Your task to perform on an android device: Clear all items from cart on ebay.com. Add bose quietcomfort 35 to the cart on ebay.com, then select checkout. Image 0: 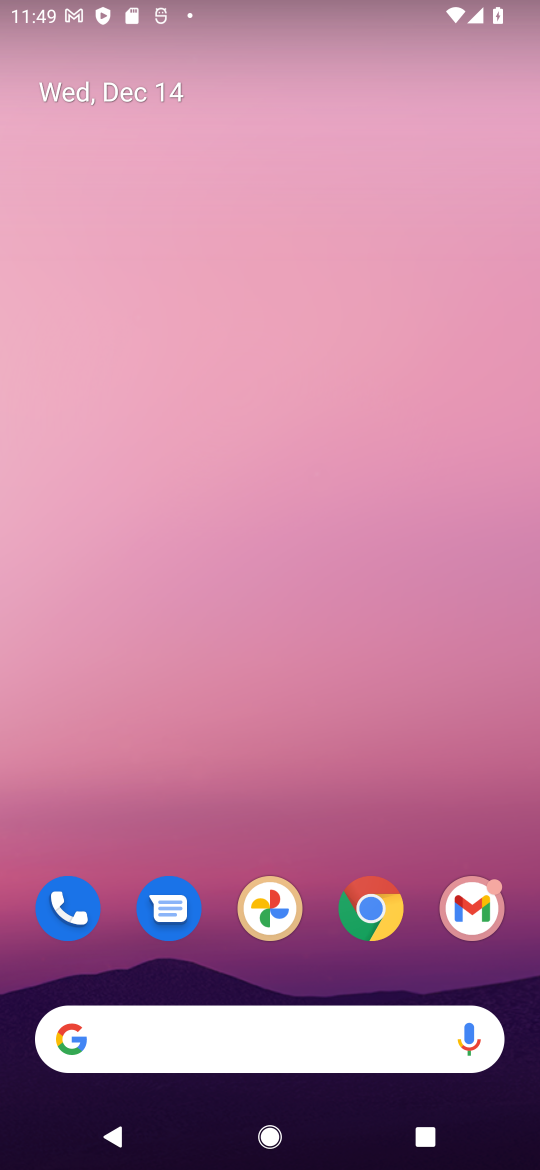
Step 0: click (372, 914)
Your task to perform on an android device: Clear all items from cart on ebay.com. Add bose quietcomfort 35 to the cart on ebay.com, then select checkout. Image 1: 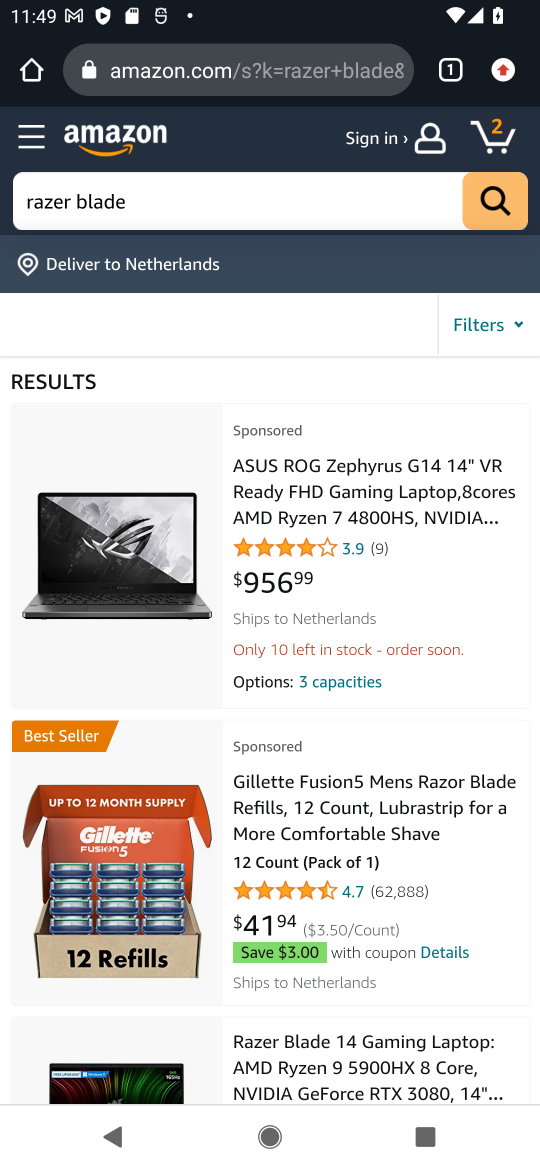
Step 1: click (144, 73)
Your task to perform on an android device: Clear all items from cart on ebay.com. Add bose quietcomfort 35 to the cart on ebay.com, then select checkout. Image 2: 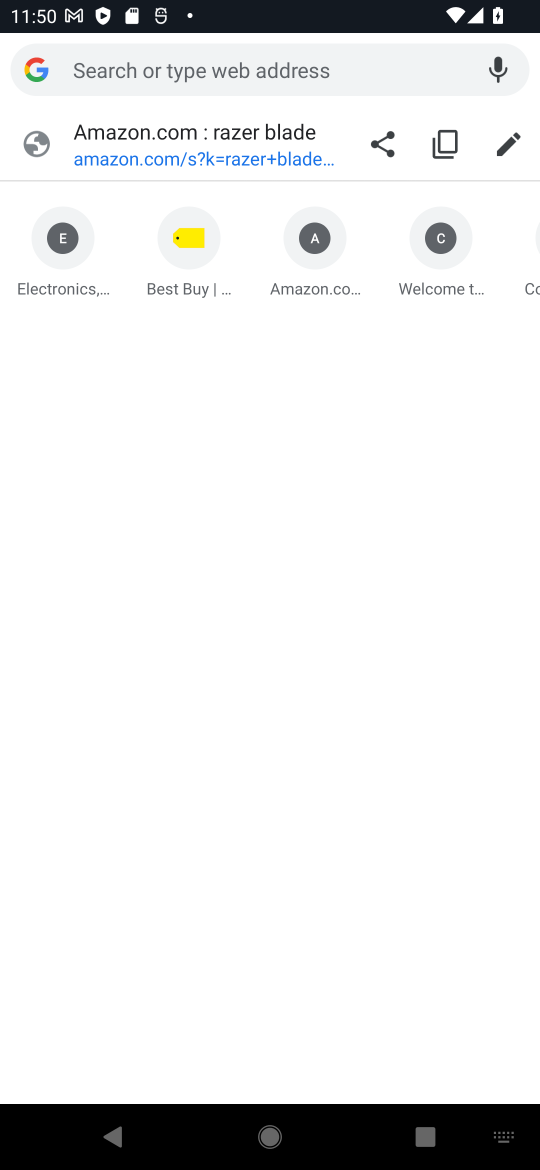
Step 2: type "ebay.com"
Your task to perform on an android device: Clear all items from cart on ebay.com. Add bose quietcomfort 35 to the cart on ebay.com, then select checkout. Image 3: 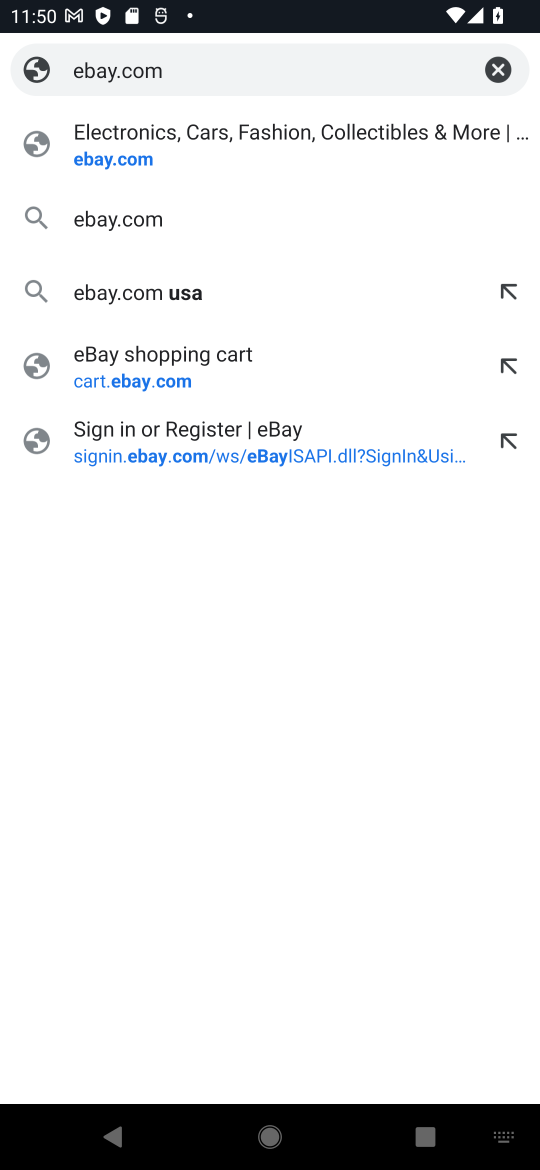
Step 3: click (112, 146)
Your task to perform on an android device: Clear all items from cart on ebay.com. Add bose quietcomfort 35 to the cart on ebay.com, then select checkout. Image 4: 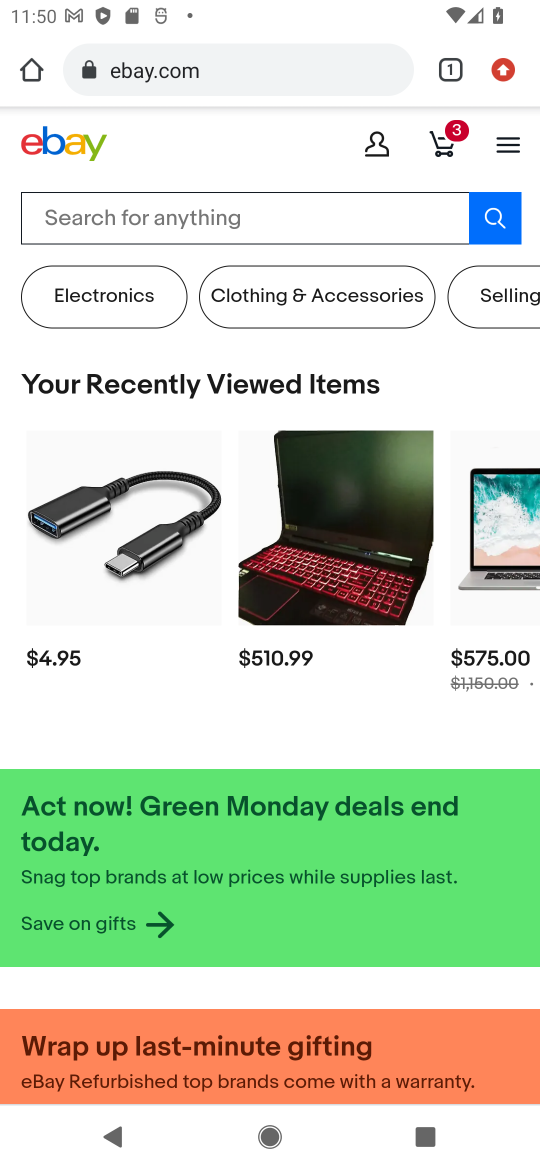
Step 4: click (449, 150)
Your task to perform on an android device: Clear all items from cart on ebay.com. Add bose quietcomfort 35 to the cart on ebay.com, then select checkout. Image 5: 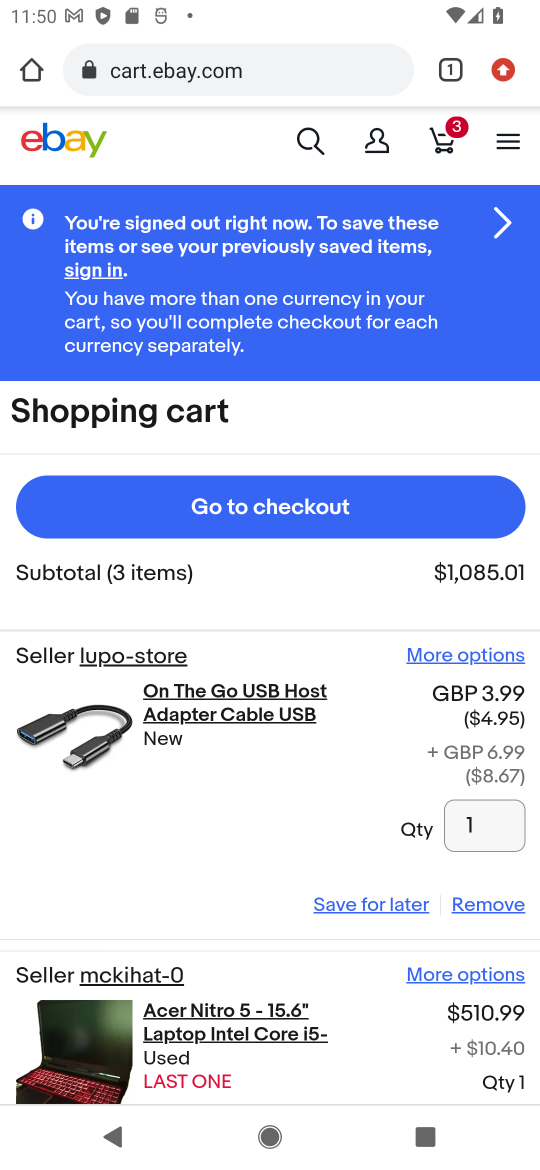
Step 5: click (467, 897)
Your task to perform on an android device: Clear all items from cart on ebay.com. Add bose quietcomfort 35 to the cart on ebay.com, then select checkout. Image 6: 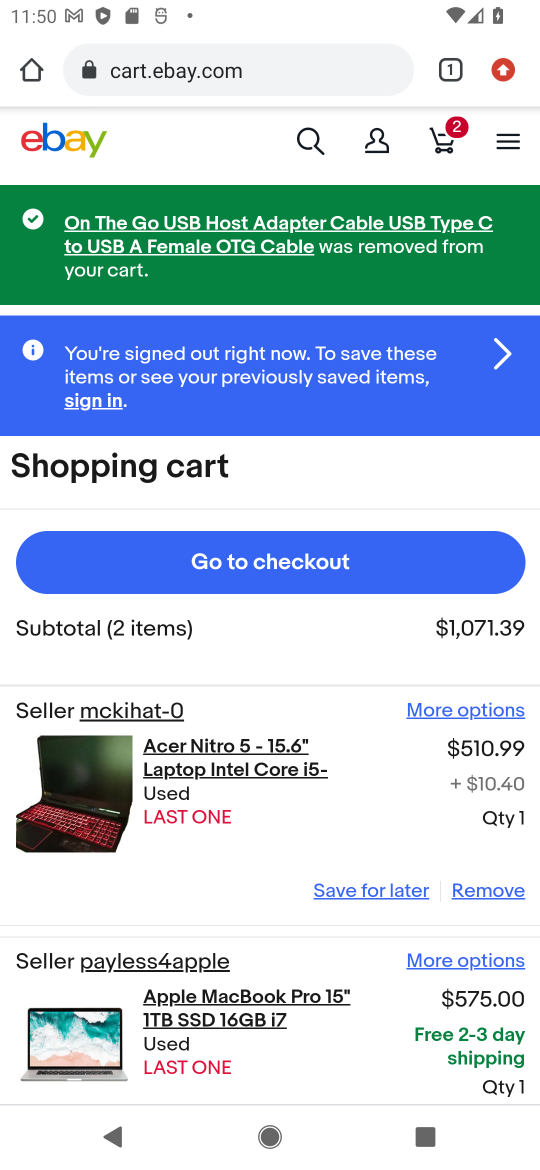
Step 6: click (467, 897)
Your task to perform on an android device: Clear all items from cart on ebay.com. Add bose quietcomfort 35 to the cart on ebay.com, then select checkout. Image 7: 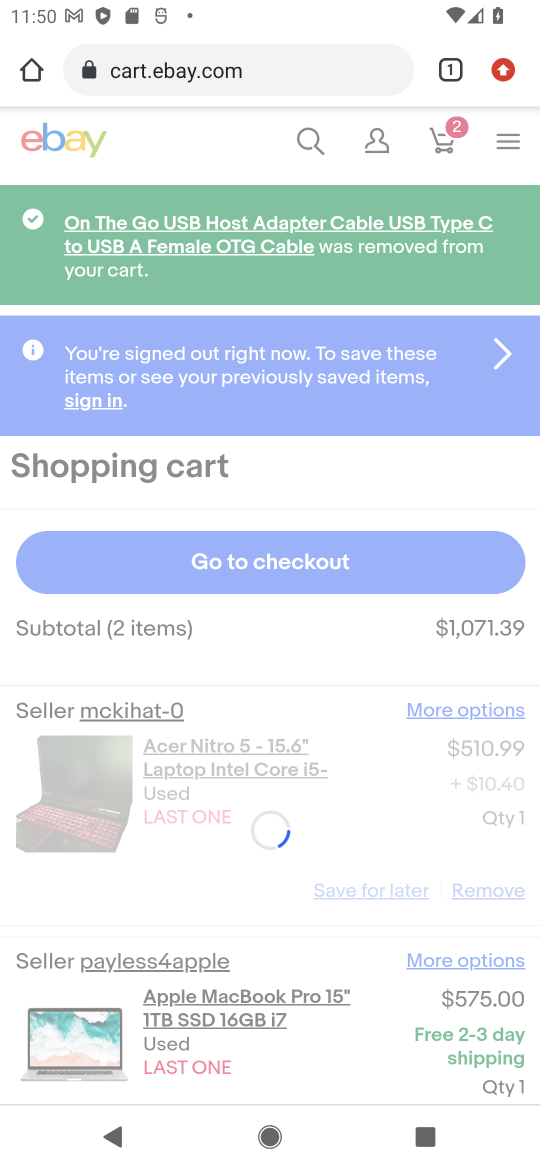
Step 7: drag from (426, 844) to (411, 698)
Your task to perform on an android device: Clear all items from cart on ebay.com. Add bose quietcomfort 35 to the cart on ebay.com, then select checkout. Image 8: 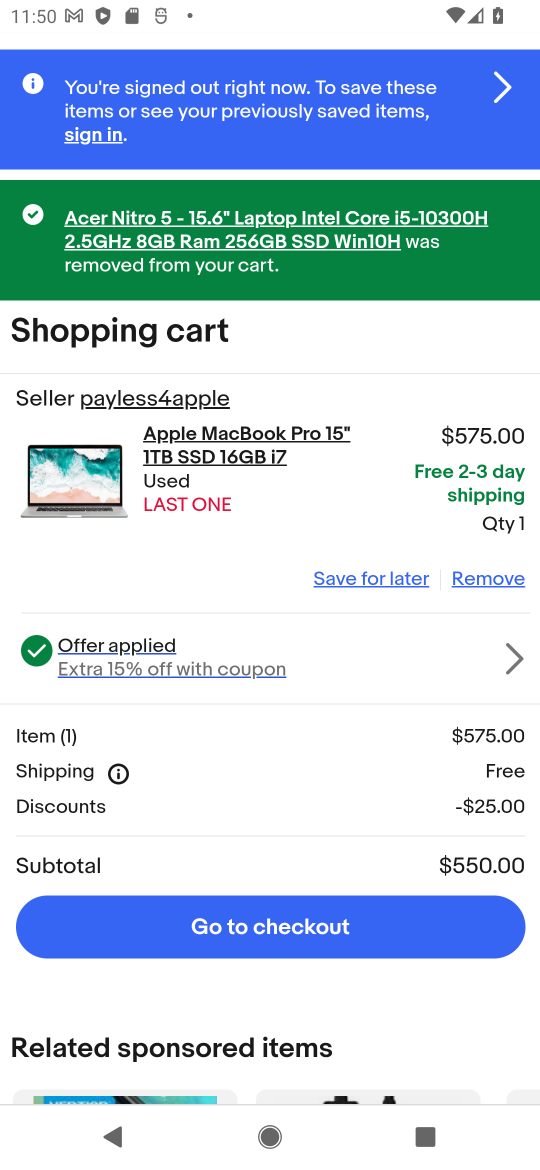
Step 8: click (505, 582)
Your task to perform on an android device: Clear all items from cart on ebay.com. Add bose quietcomfort 35 to the cart on ebay.com, then select checkout. Image 9: 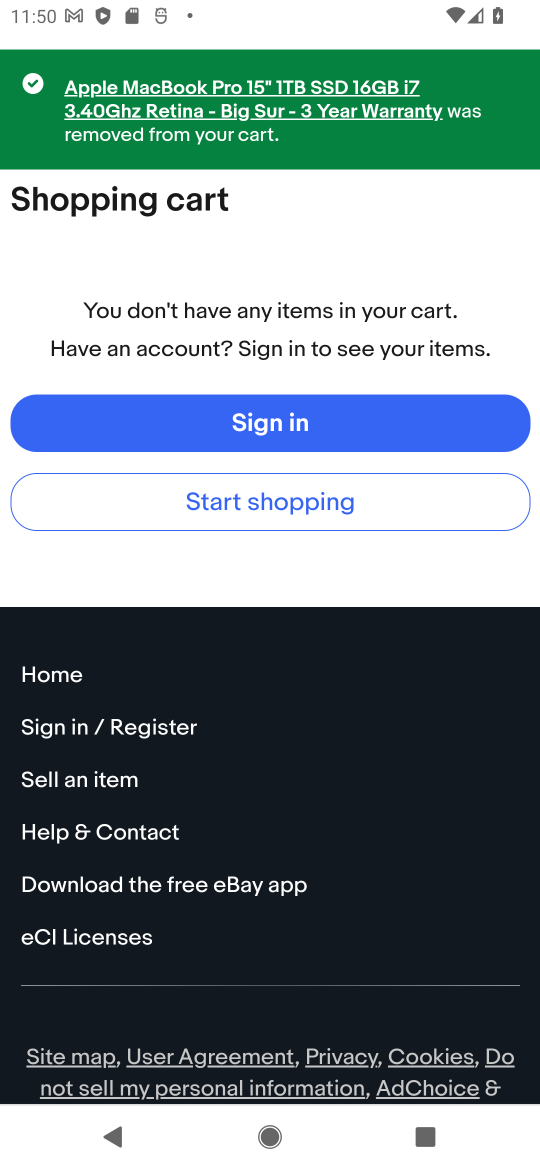
Step 9: drag from (461, 266) to (449, 554)
Your task to perform on an android device: Clear all items from cart on ebay.com. Add bose quietcomfort 35 to the cart on ebay.com, then select checkout. Image 10: 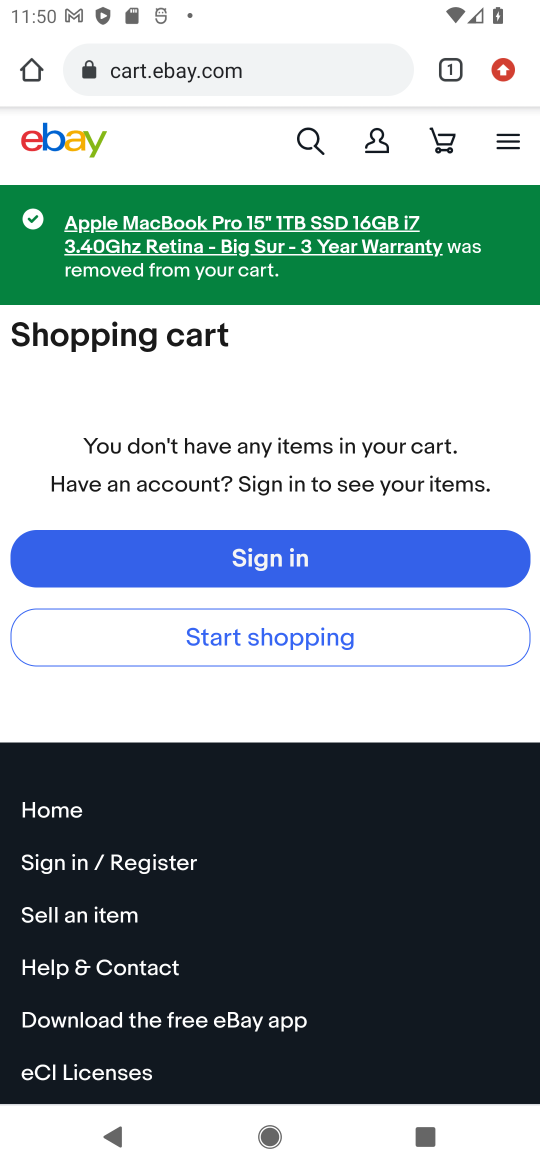
Step 10: click (310, 144)
Your task to perform on an android device: Clear all items from cart on ebay.com. Add bose quietcomfort 35 to the cart on ebay.com, then select checkout. Image 11: 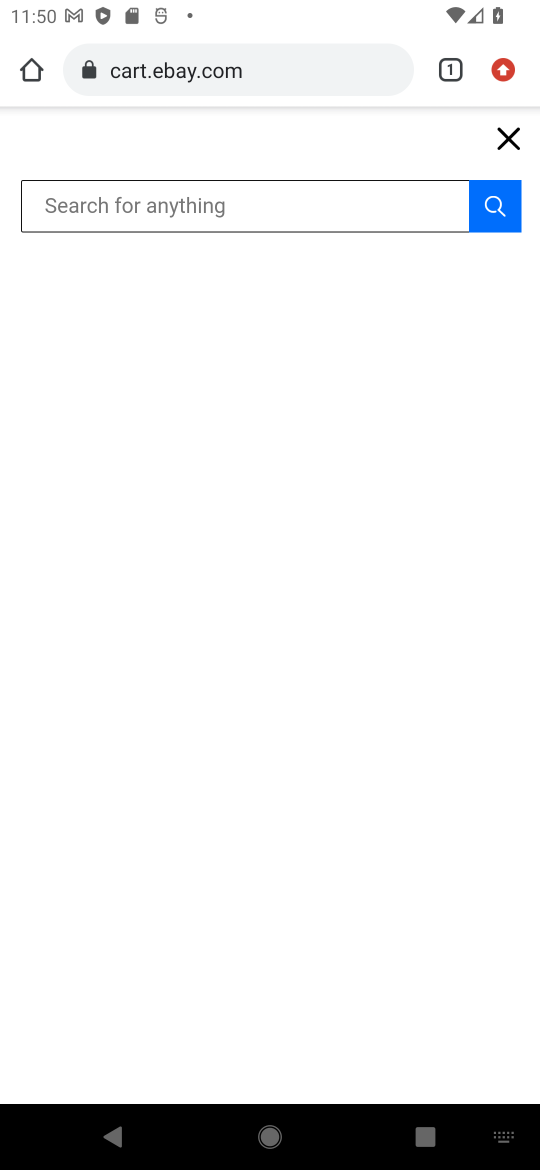
Step 11: type "bose quietcomfort 35"
Your task to perform on an android device: Clear all items from cart on ebay.com. Add bose quietcomfort 35 to the cart on ebay.com, then select checkout. Image 12: 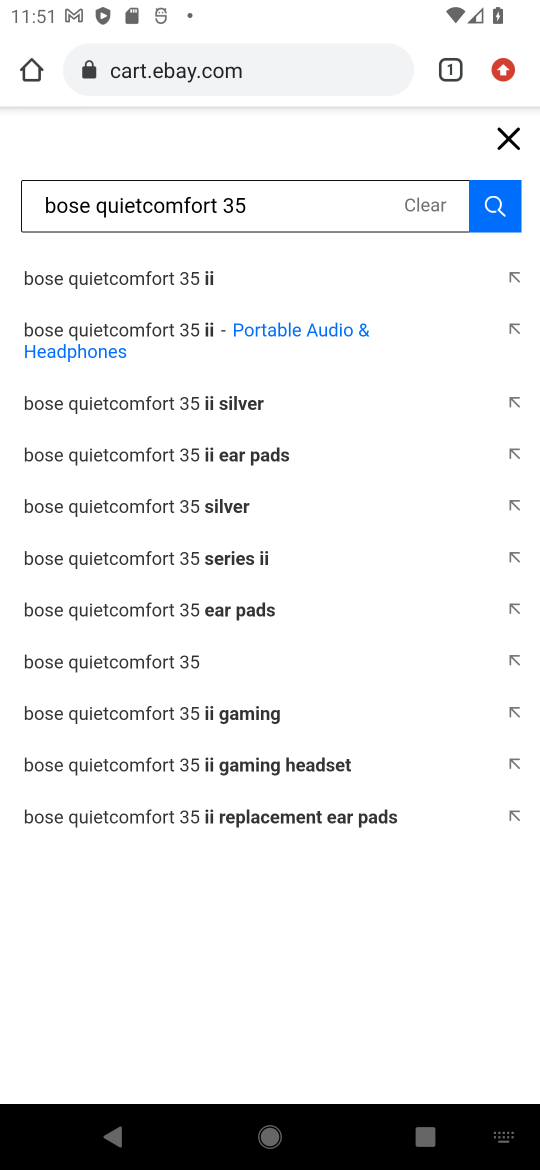
Step 12: click (130, 665)
Your task to perform on an android device: Clear all items from cart on ebay.com. Add bose quietcomfort 35 to the cart on ebay.com, then select checkout. Image 13: 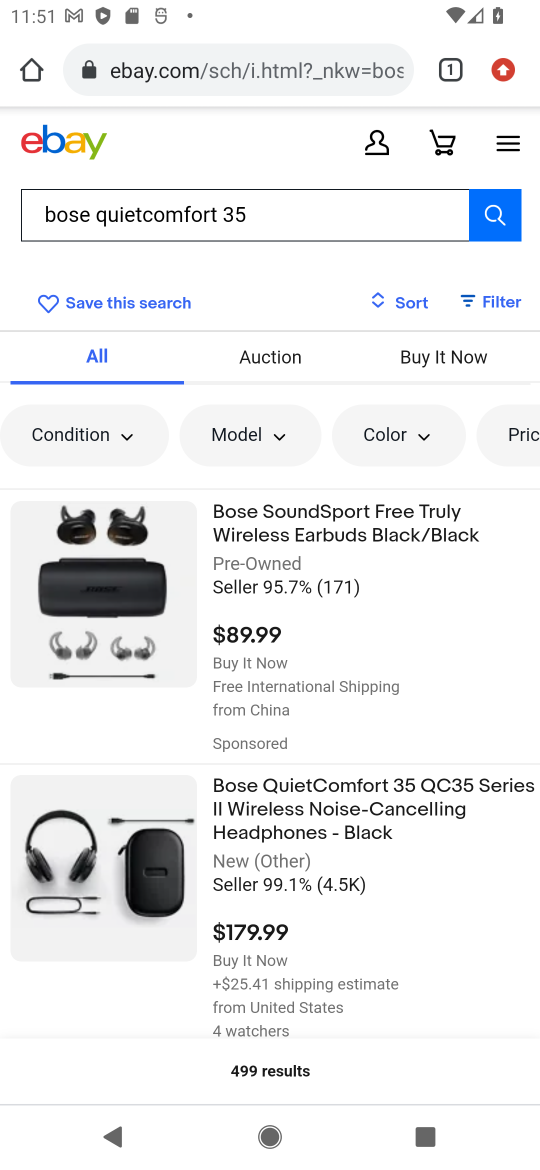
Step 13: click (249, 834)
Your task to perform on an android device: Clear all items from cart on ebay.com. Add bose quietcomfort 35 to the cart on ebay.com, then select checkout. Image 14: 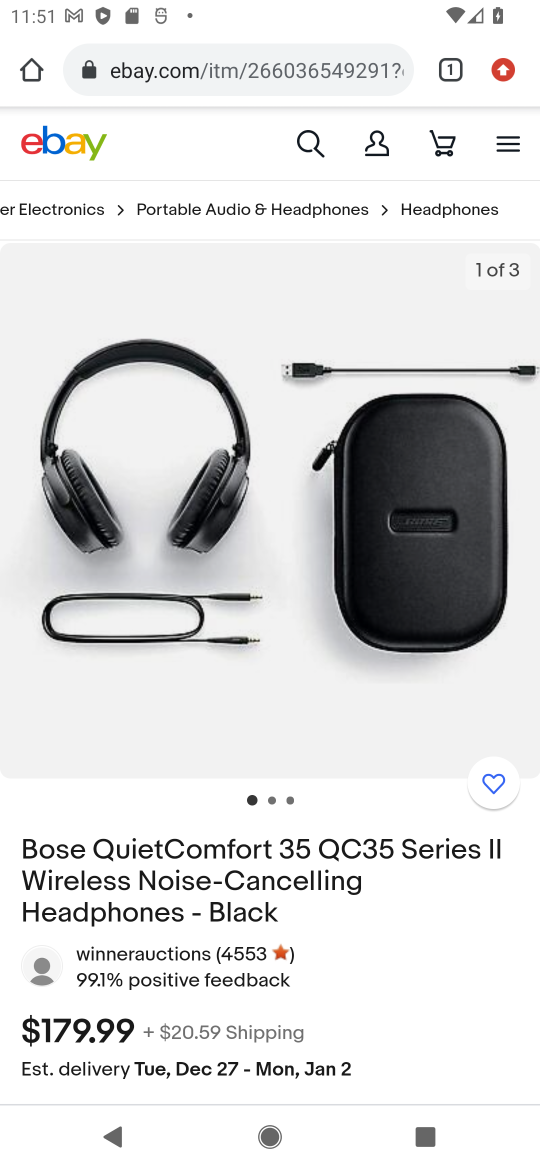
Step 14: drag from (247, 816) to (240, 449)
Your task to perform on an android device: Clear all items from cart on ebay.com. Add bose quietcomfort 35 to the cart on ebay.com, then select checkout. Image 15: 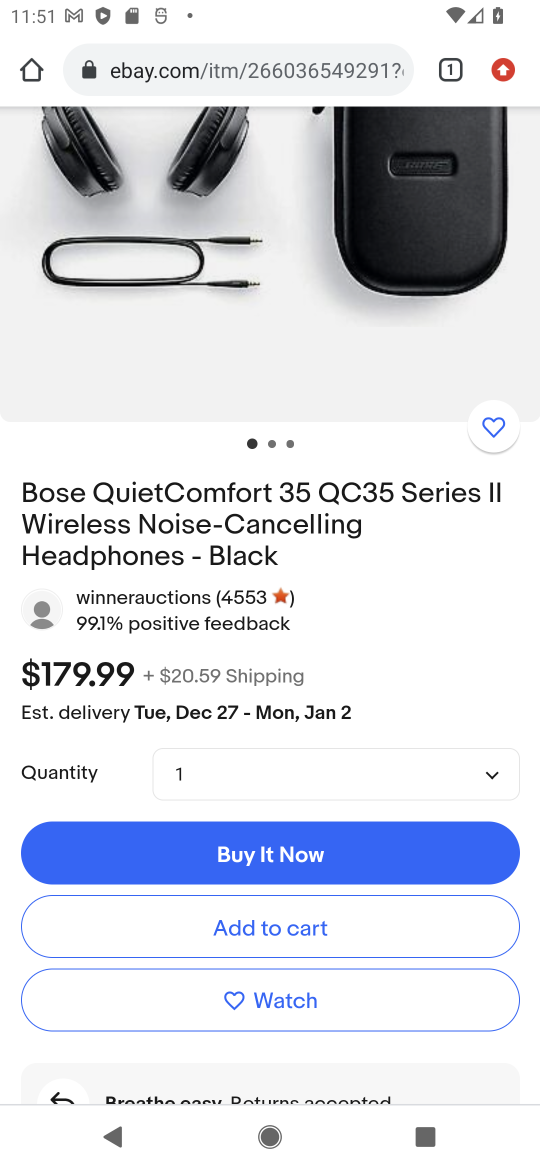
Step 15: click (222, 923)
Your task to perform on an android device: Clear all items from cart on ebay.com. Add bose quietcomfort 35 to the cart on ebay.com, then select checkout. Image 16: 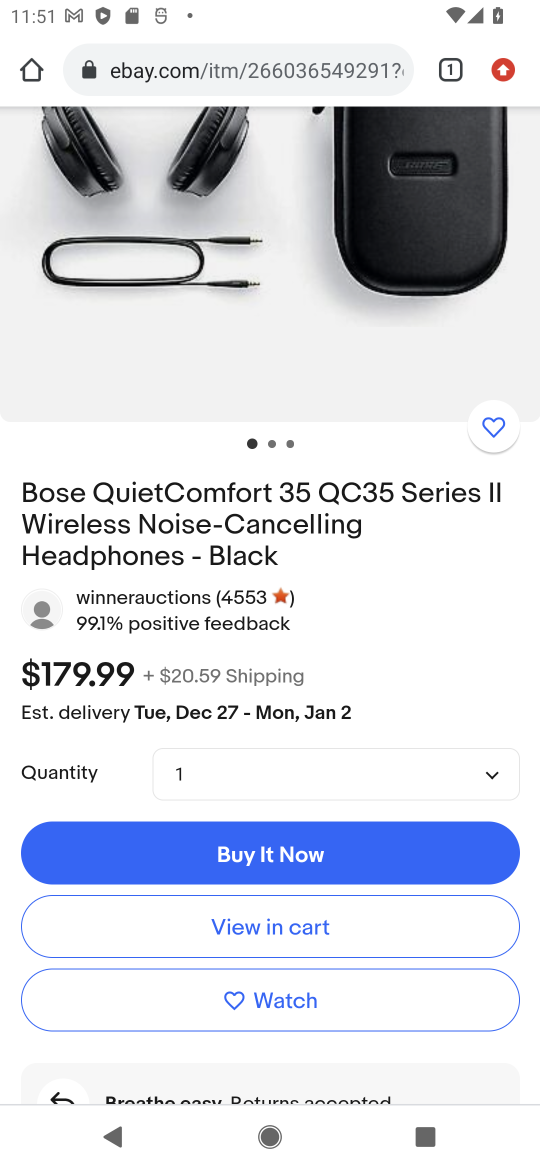
Step 16: click (224, 924)
Your task to perform on an android device: Clear all items from cart on ebay.com. Add bose quietcomfort 35 to the cart on ebay.com, then select checkout. Image 17: 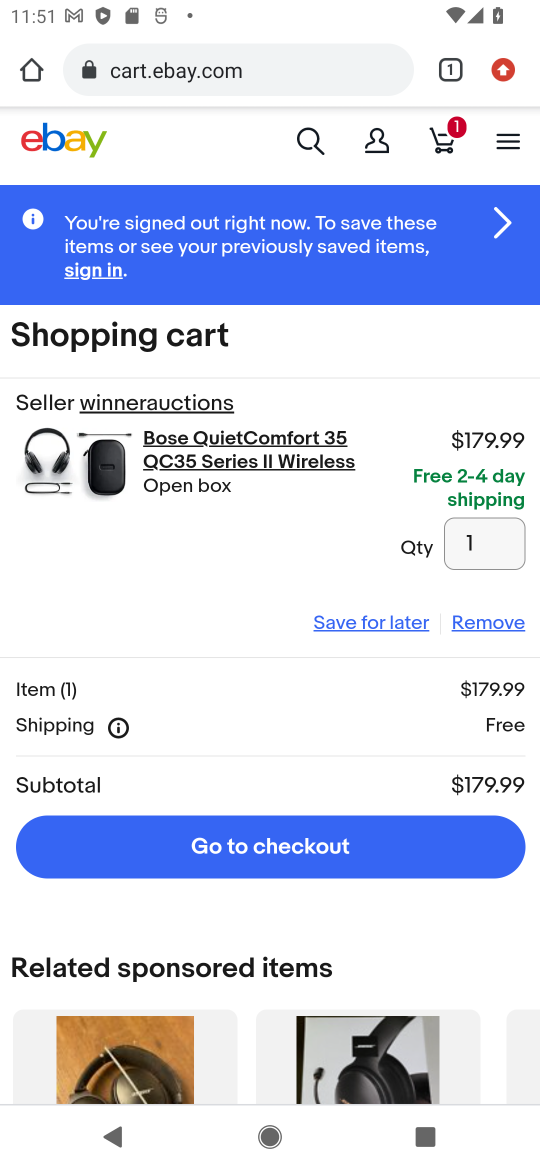
Step 17: click (240, 859)
Your task to perform on an android device: Clear all items from cart on ebay.com. Add bose quietcomfort 35 to the cart on ebay.com, then select checkout. Image 18: 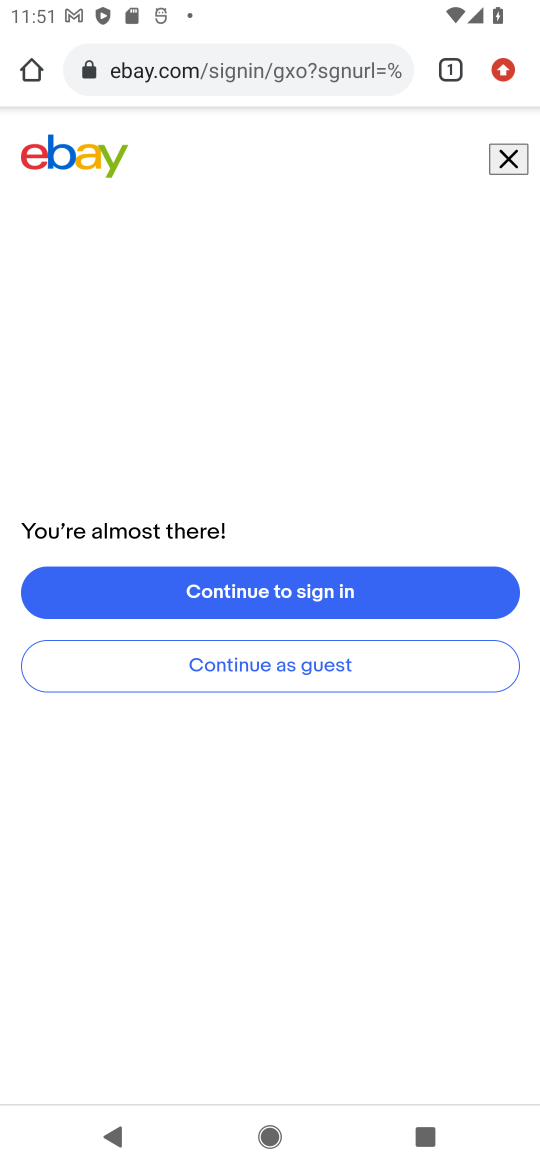
Step 18: task complete